Your task to perform on an android device: visit the assistant section in the google photos Image 0: 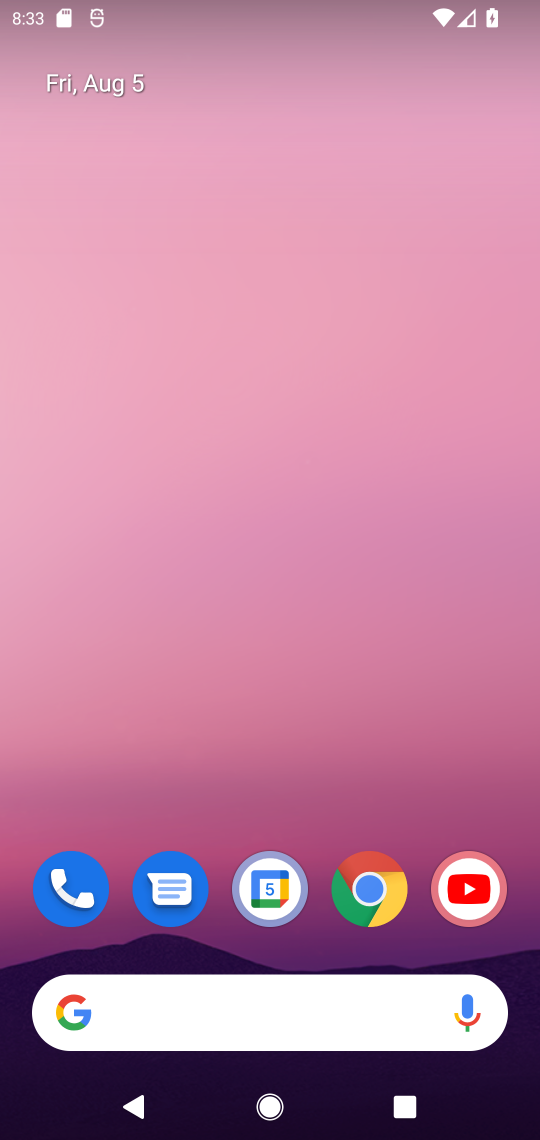
Step 0: drag from (150, 973) to (194, 306)
Your task to perform on an android device: visit the assistant section in the google photos Image 1: 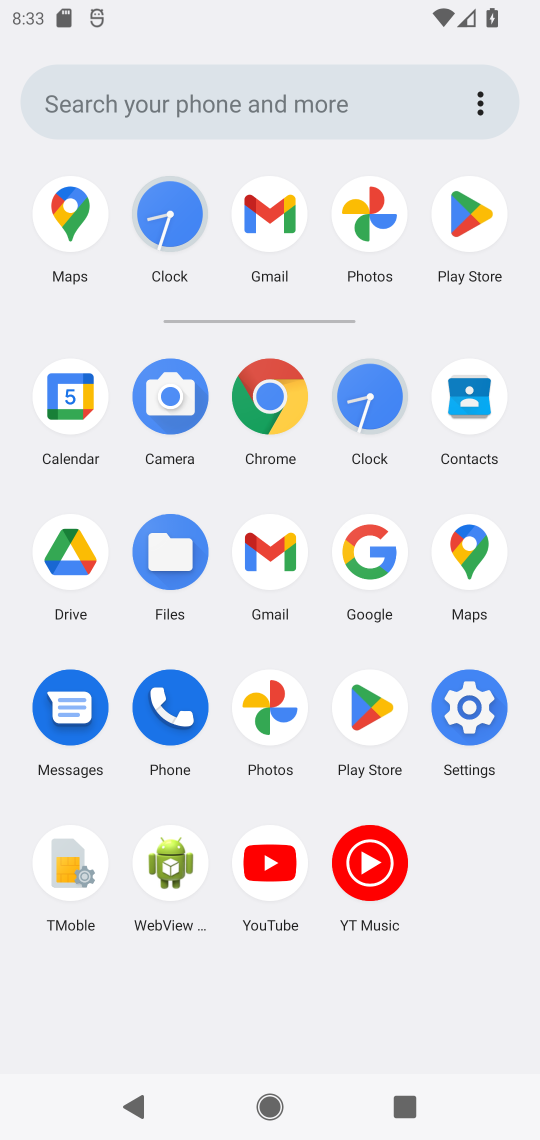
Step 1: click (264, 714)
Your task to perform on an android device: visit the assistant section in the google photos Image 2: 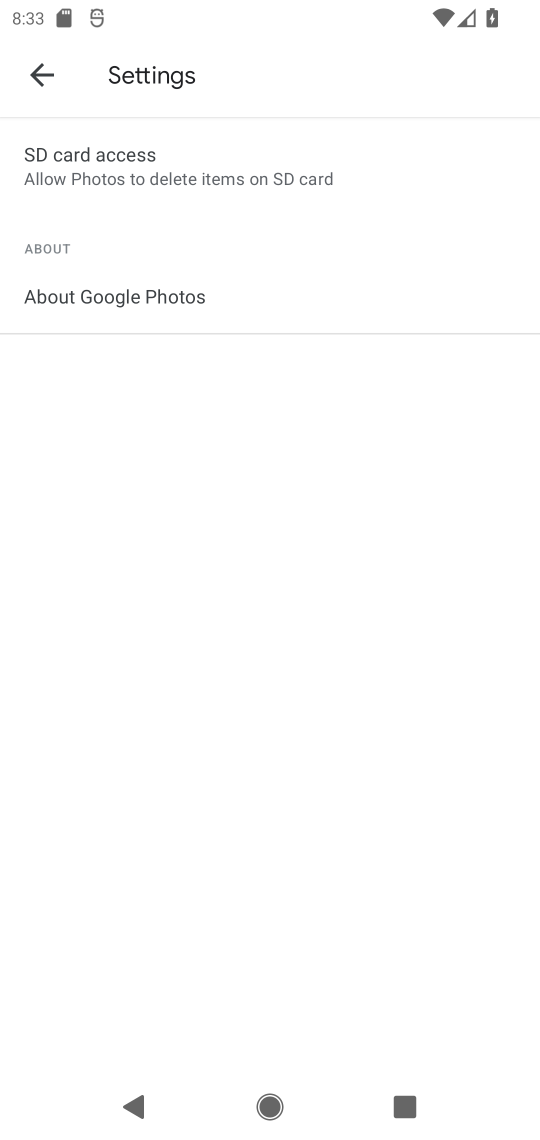
Step 2: click (39, 69)
Your task to perform on an android device: visit the assistant section in the google photos Image 3: 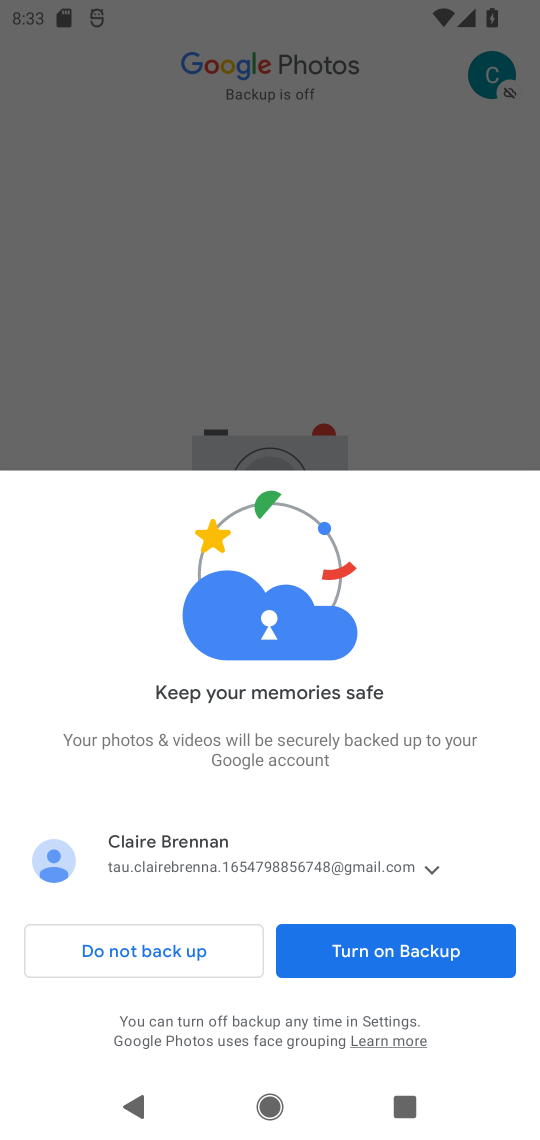
Step 3: click (345, 944)
Your task to perform on an android device: visit the assistant section in the google photos Image 4: 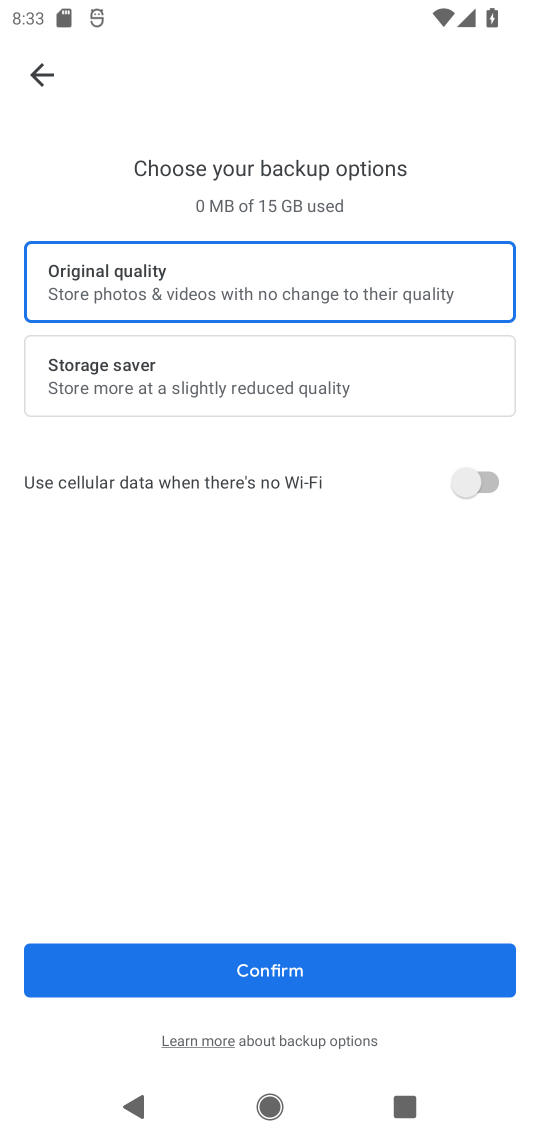
Step 4: click (247, 968)
Your task to perform on an android device: visit the assistant section in the google photos Image 5: 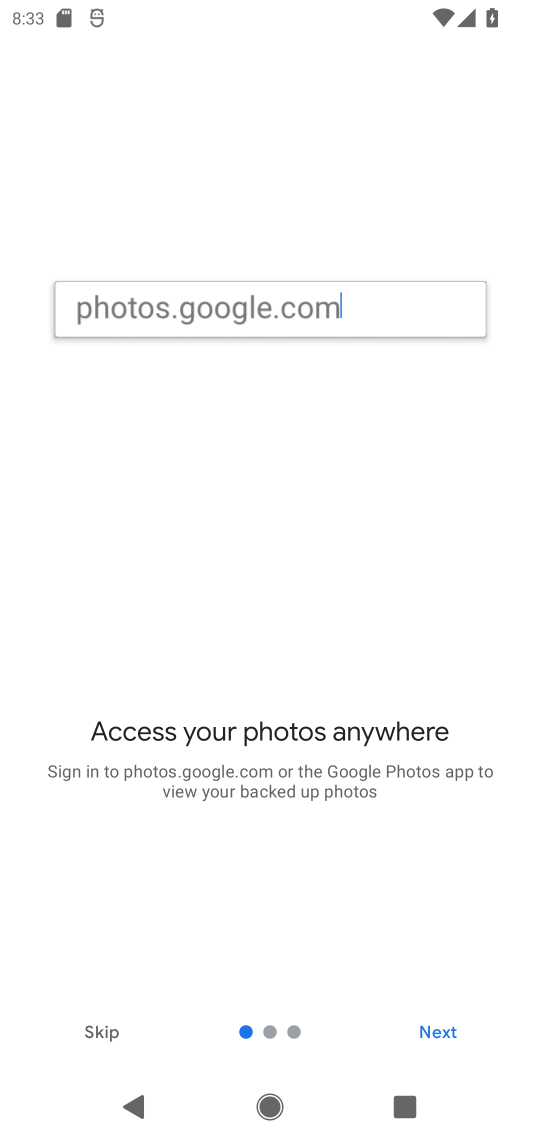
Step 5: click (429, 1040)
Your task to perform on an android device: visit the assistant section in the google photos Image 6: 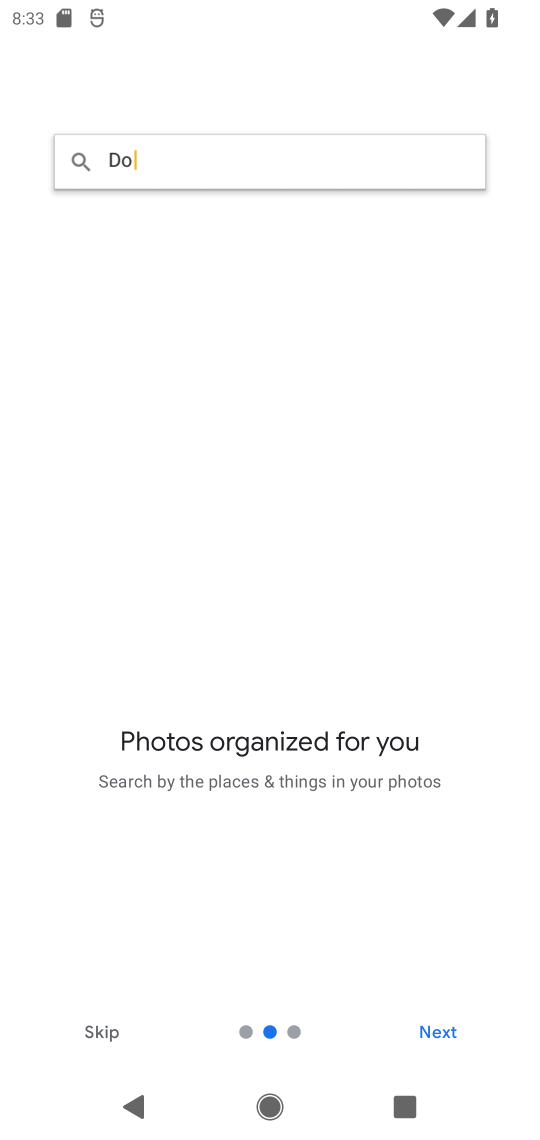
Step 6: click (429, 1040)
Your task to perform on an android device: visit the assistant section in the google photos Image 7: 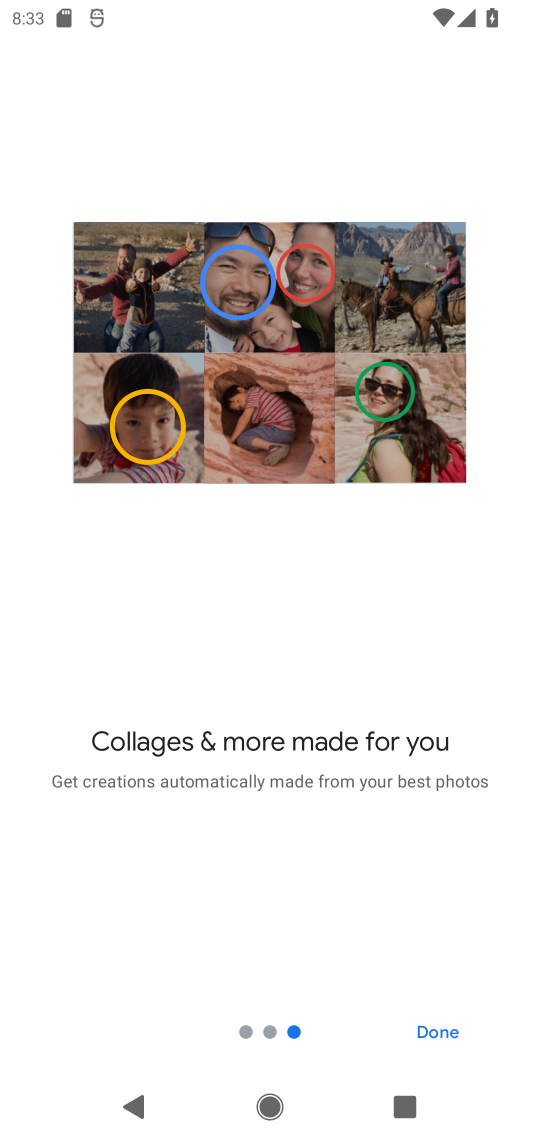
Step 7: click (429, 1040)
Your task to perform on an android device: visit the assistant section in the google photos Image 8: 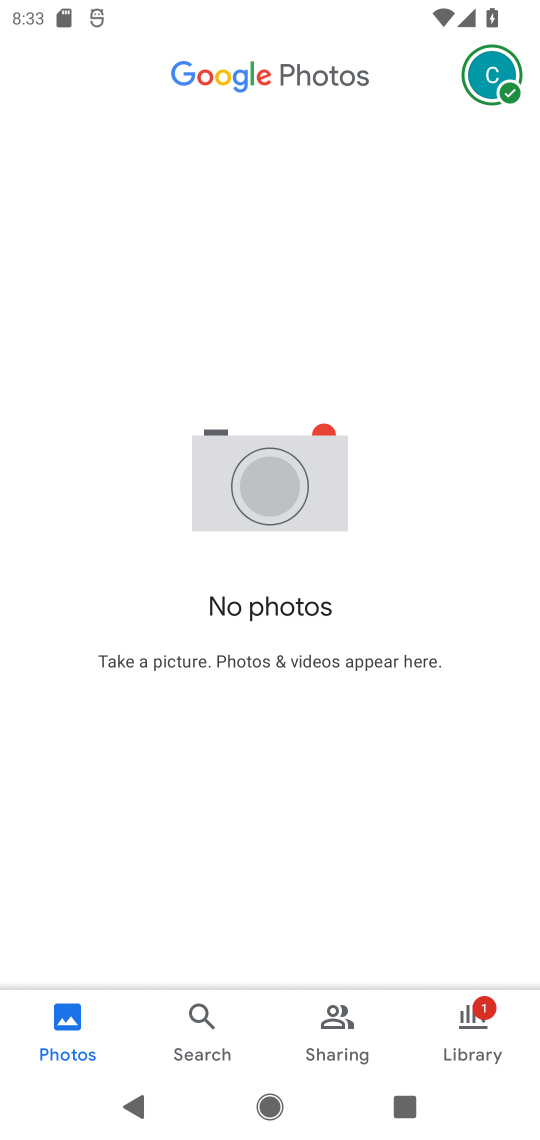
Step 8: click (429, 1040)
Your task to perform on an android device: visit the assistant section in the google photos Image 9: 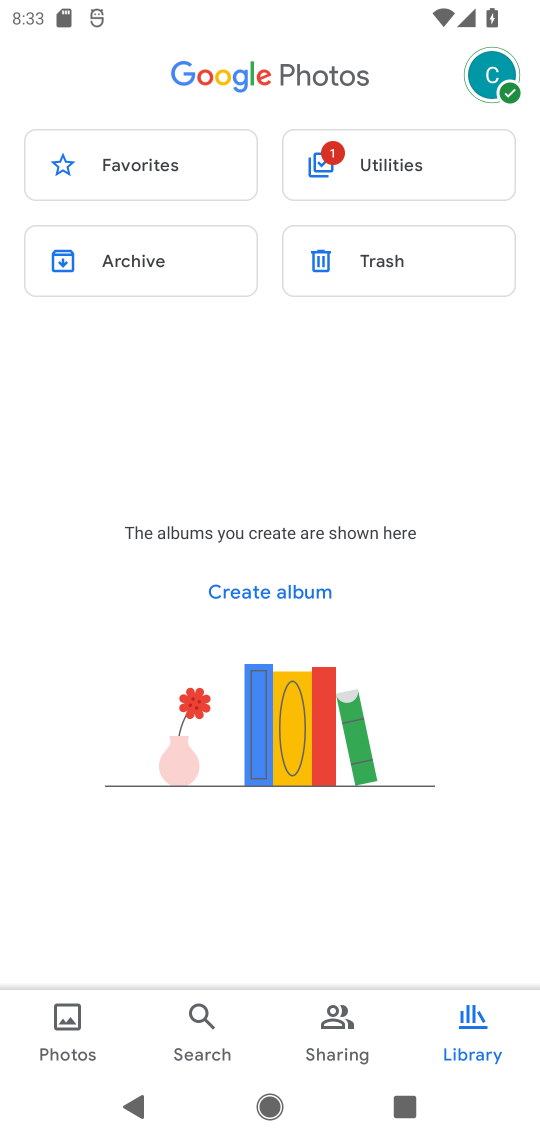
Step 9: click (69, 1008)
Your task to perform on an android device: visit the assistant section in the google photos Image 10: 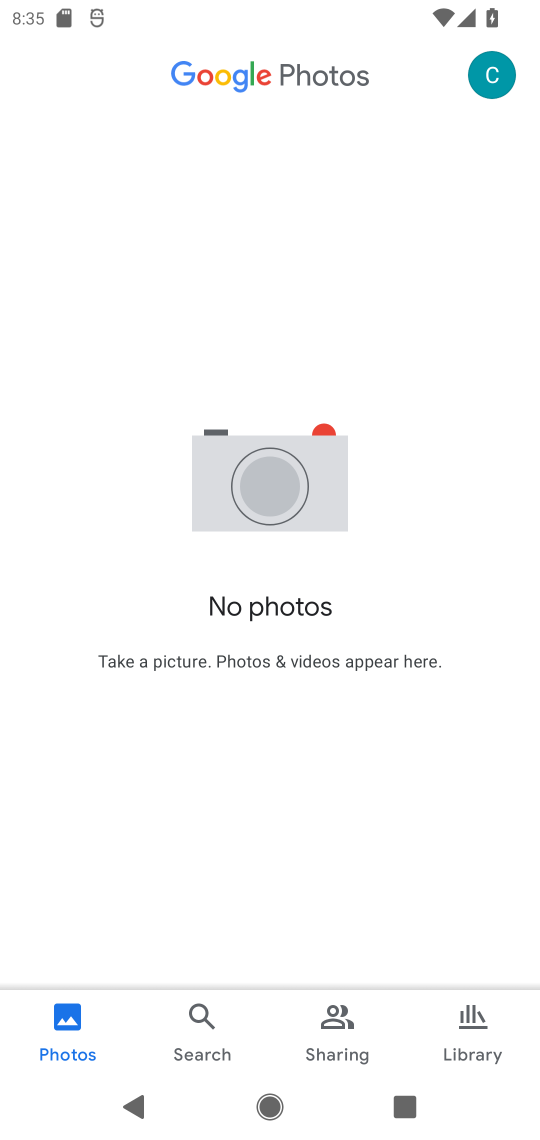
Step 10: task complete